Your task to perform on an android device: find photos in the google photos app Image 0: 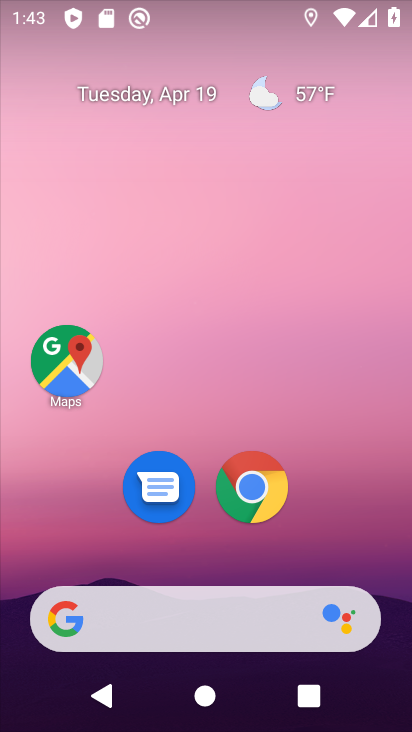
Step 0: drag from (351, 209) to (351, 67)
Your task to perform on an android device: find photos in the google photos app Image 1: 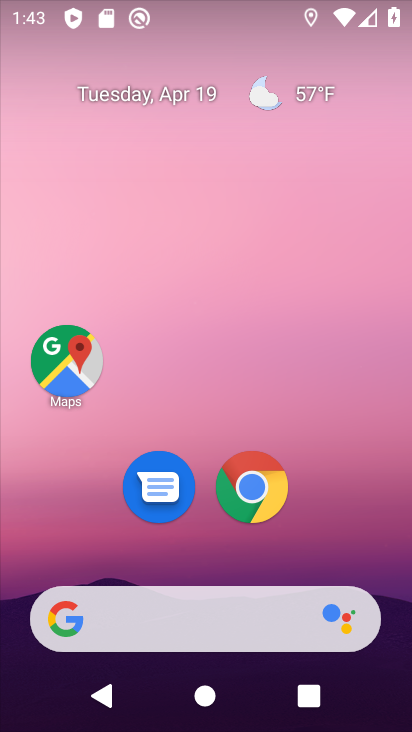
Step 1: drag from (366, 556) to (334, 96)
Your task to perform on an android device: find photos in the google photos app Image 2: 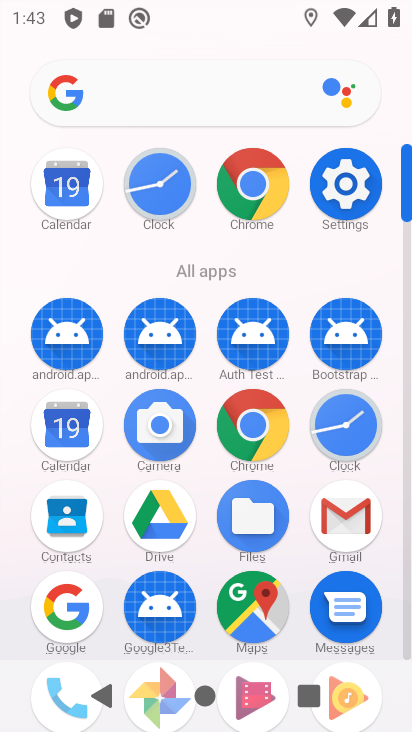
Step 2: drag from (298, 555) to (275, 353)
Your task to perform on an android device: find photos in the google photos app Image 3: 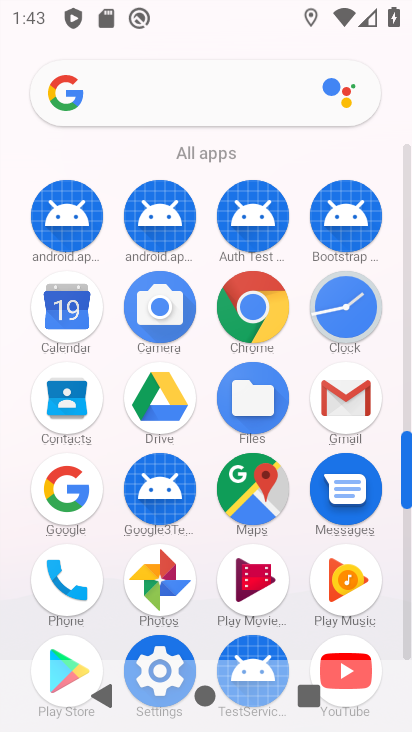
Step 3: click (153, 576)
Your task to perform on an android device: find photos in the google photos app Image 4: 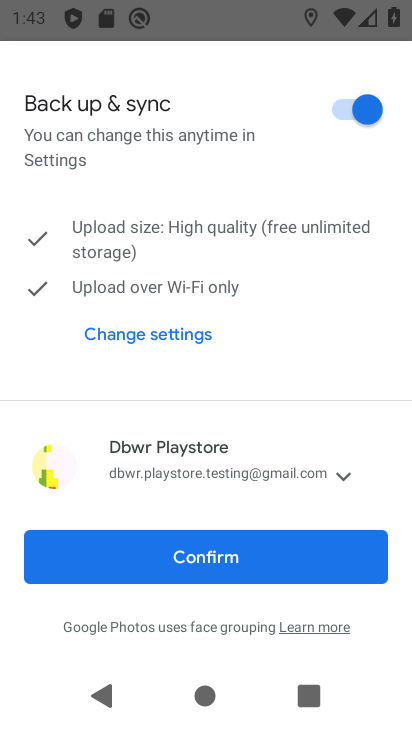
Step 4: click (148, 555)
Your task to perform on an android device: find photos in the google photos app Image 5: 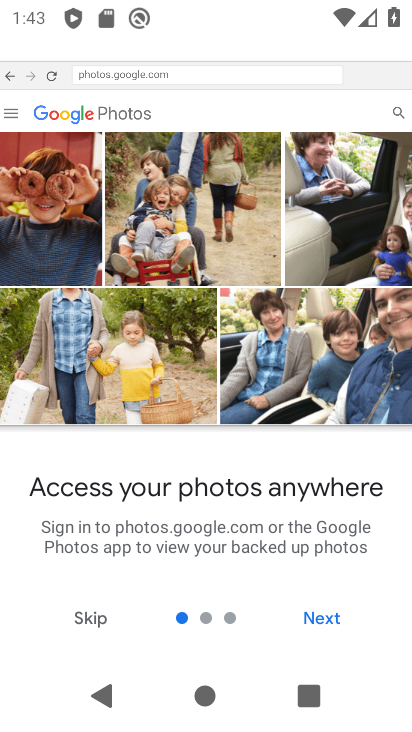
Step 5: click (337, 615)
Your task to perform on an android device: find photos in the google photos app Image 6: 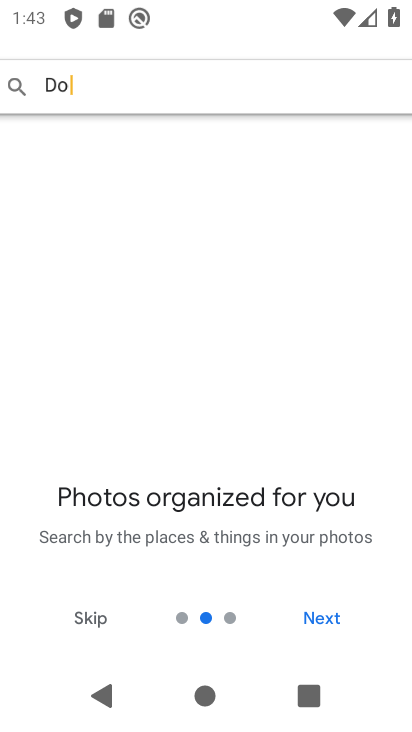
Step 6: click (336, 615)
Your task to perform on an android device: find photos in the google photos app Image 7: 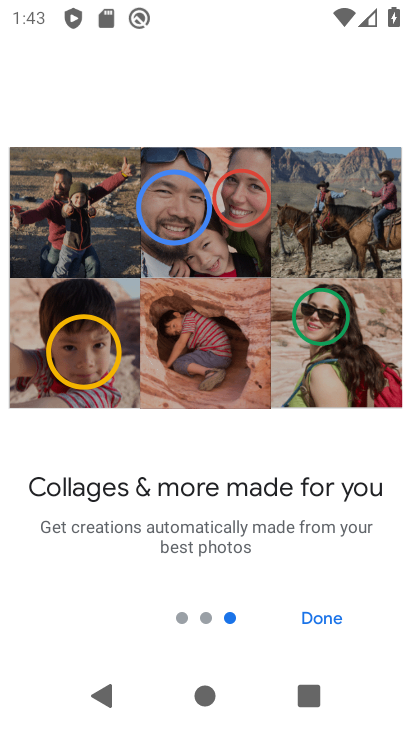
Step 7: click (335, 612)
Your task to perform on an android device: find photos in the google photos app Image 8: 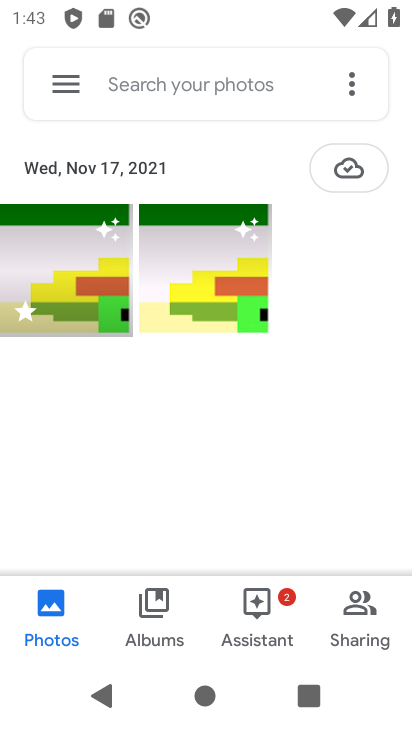
Step 8: task complete